Your task to perform on an android device: change text size in settings app Image 0: 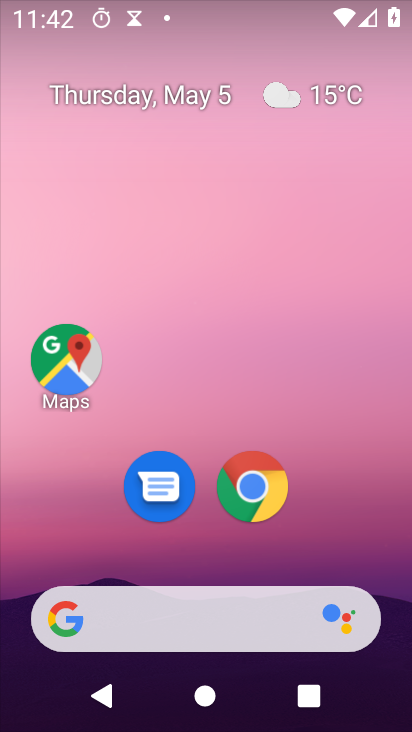
Step 0: drag from (389, 617) to (263, 221)
Your task to perform on an android device: change text size in settings app Image 1: 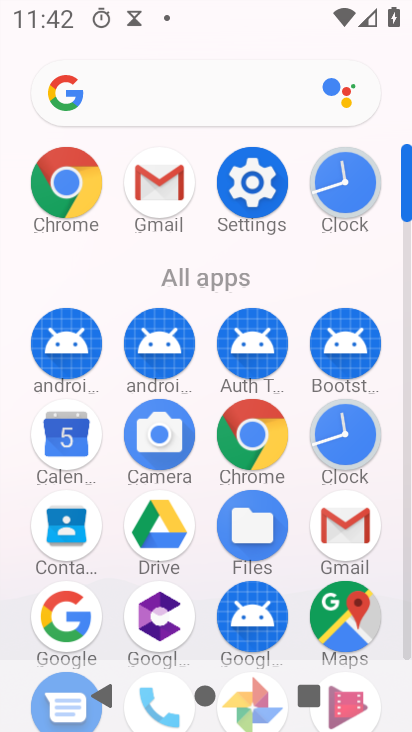
Step 1: click (257, 183)
Your task to perform on an android device: change text size in settings app Image 2: 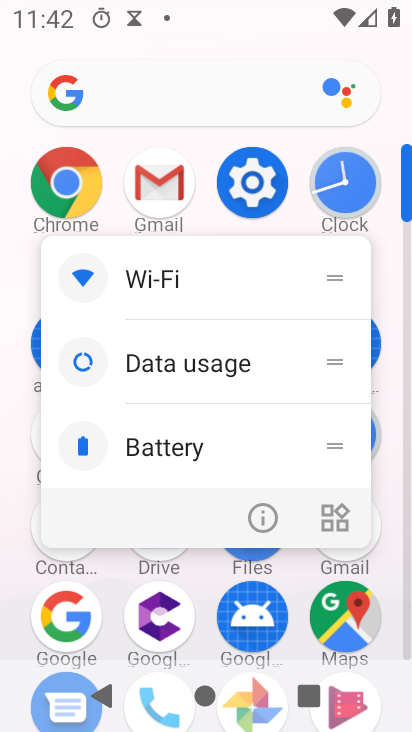
Step 2: click (210, 203)
Your task to perform on an android device: change text size in settings app Image 3: 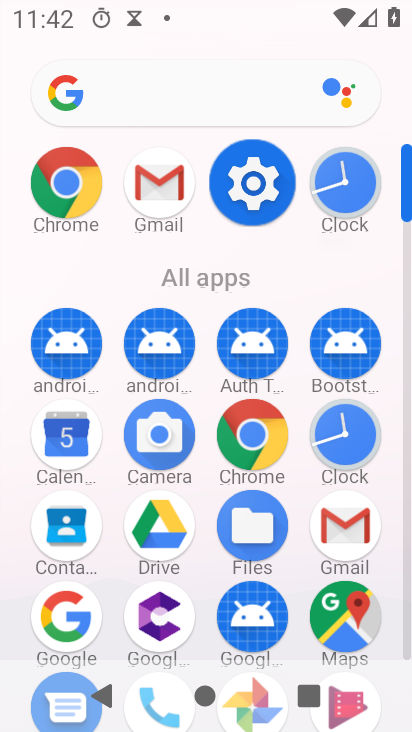
Step 3: click (230, 215)
Your task to perform on an android device: change text size in settings app Image 4: 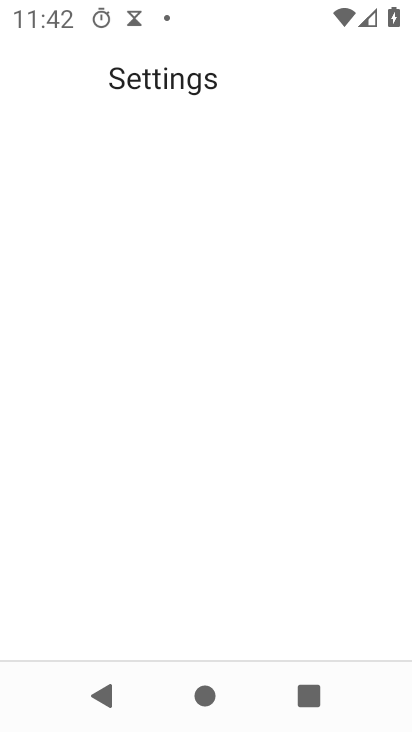
Step 4: click (253, 172)
Your task to perform on an android device: change text size in settings app Image 5: 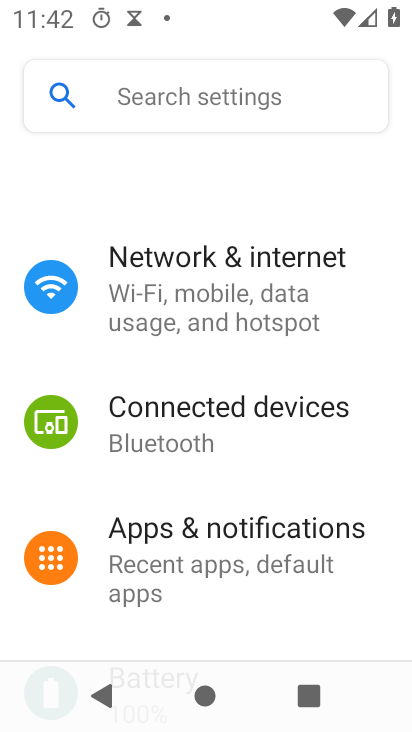
Step 5: click (254, 173)
Your task to perform on an android device: change text size in settings app Image 6: 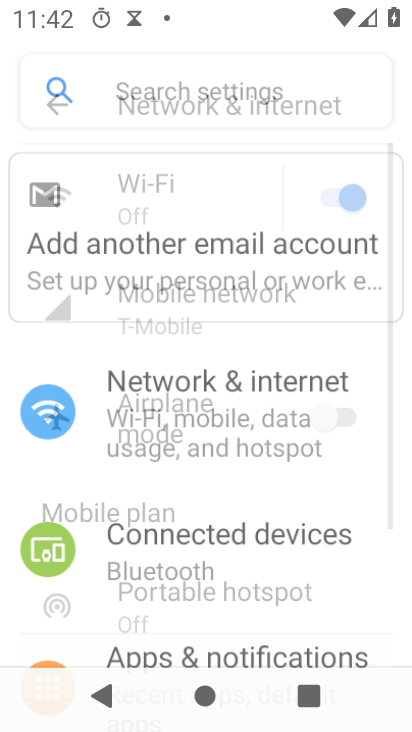
Step 6: drag from (226, 329) to (207, 195)
Your task to perform on an android device: change text size in settings app Image 7: 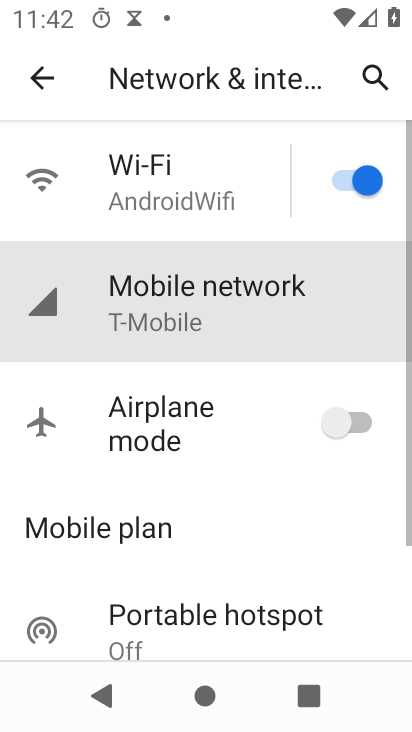
Step 7: drag from (280, 509) to (257, 205)
Your task to perform on an android device: change text size in settings app Image 8: 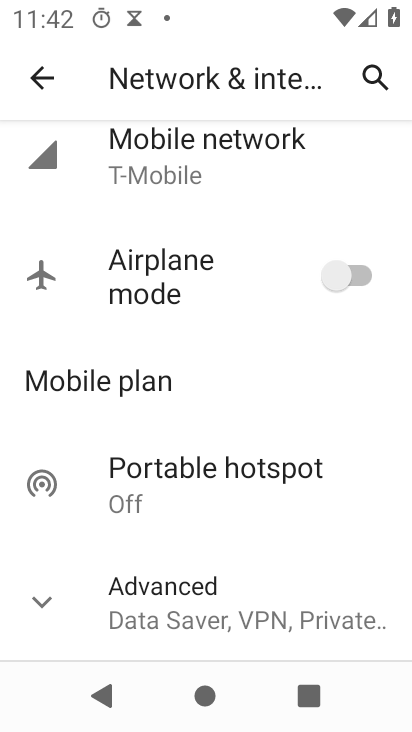
Step 8: click (41, 76)
Your task to perform on an android device: change text size in settings app Image 9: 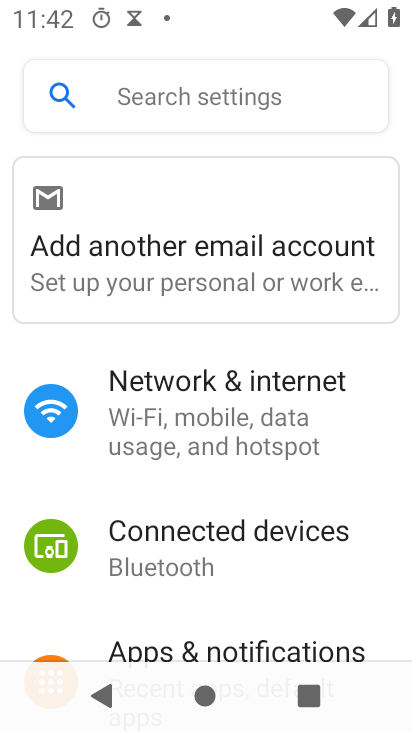
Step 9: drag from (229, 556) to (221, 317)
Your task to perform on an android device: change text size in settings app Image 10: 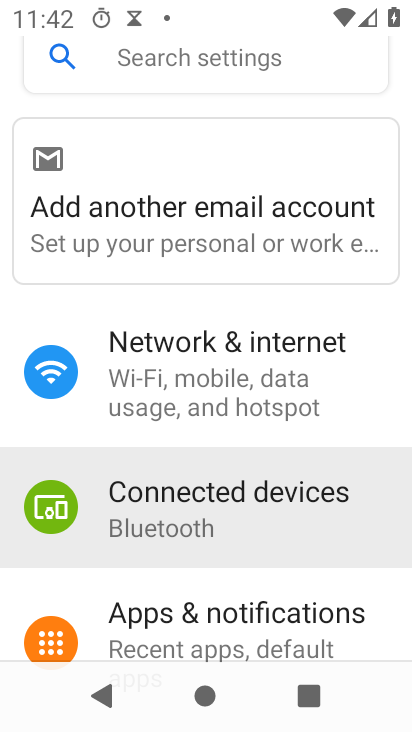
Step 10: drag from (222, 565) to (240, 202)
Your task to perform on an android device: change text size in settings app Image 11: 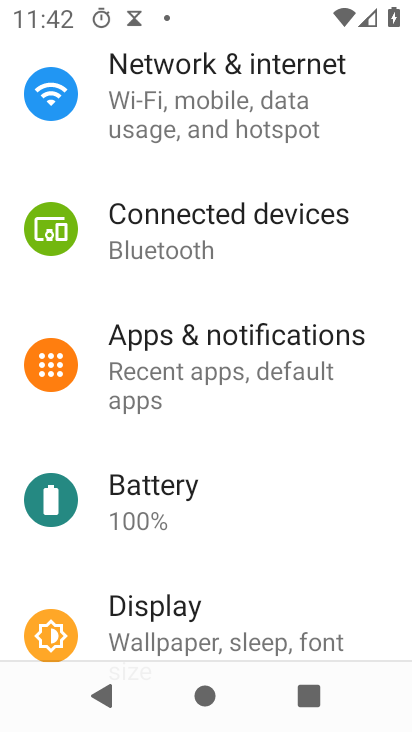
Step 11: drag from (245, 470) to (214, 144)
Your task to perform on an android device: change text size in settings app Image 12: 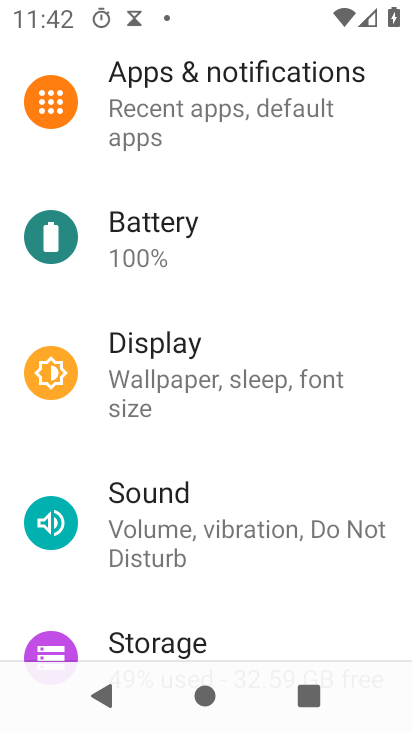
Step 12: click (176, 379)
Your task to perform on an android device: change text size in settings app Image 13: 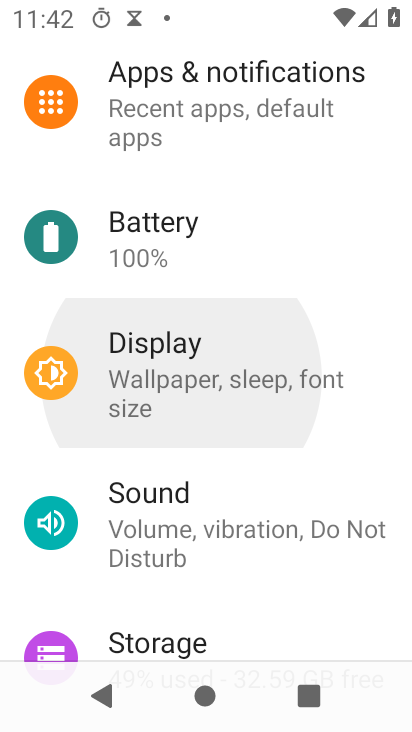
Step 13: click (176, 379)
Your task to perform on an android device: change text size in settings app Image 14: 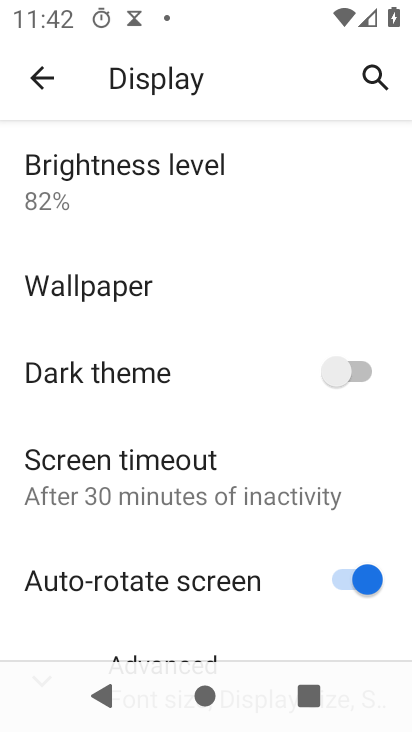
Step 14: drag from (188, 543) to (112, 56)
Your task to perform on an android device: change text size in settings app Image 15: 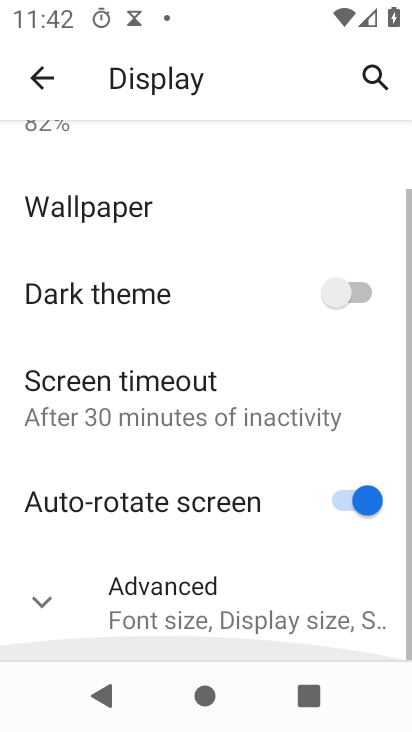
Step 15: drag from (195, 439) to (96, 139)
Your task to perform on an android device: change text size in settings app Image 16: 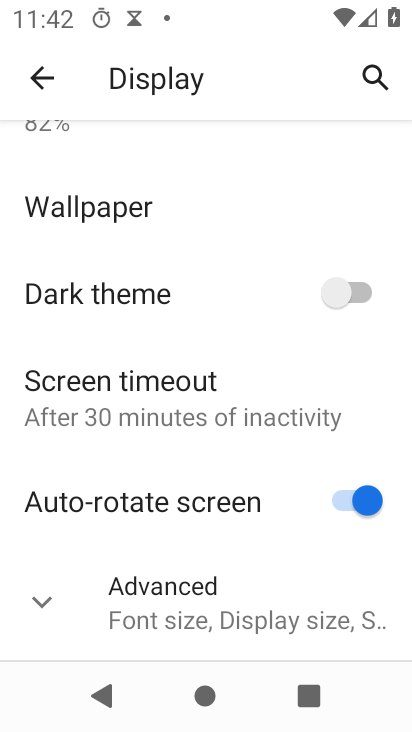
Step 16: drag from (218, 565) to (171, 190)
Your task to perform on an android device: change text size in settings app Image 17: 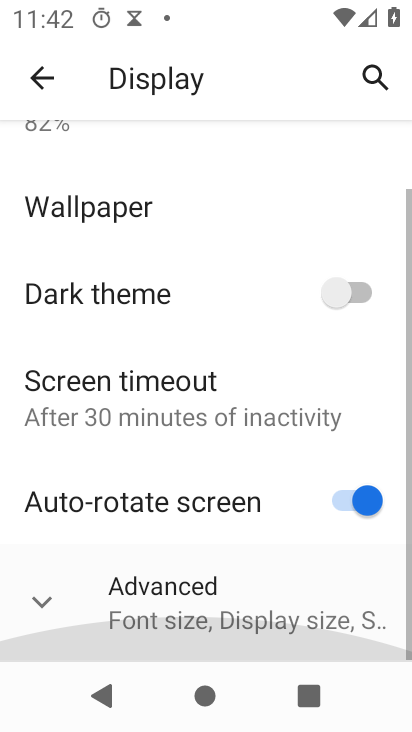
Step 17: drag from (215, 523) to (228, 173)
Your task to perform on an android device: change text size in settings app Image 18: 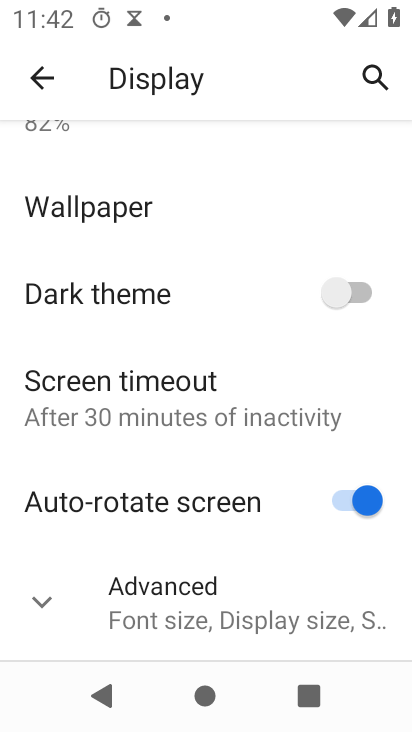
Step 18: click (213, 598)
Your task to perform on an android device: change text size in settings app Image 19: 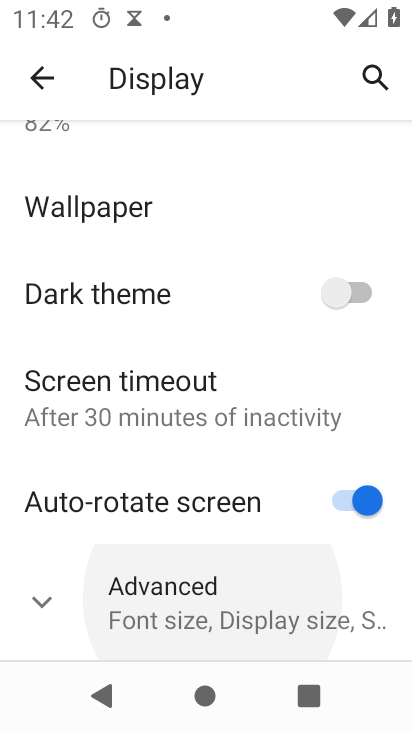
Step 19: click (215, 613)
Your task to perform on an android device: change text size in settings app Image 20: 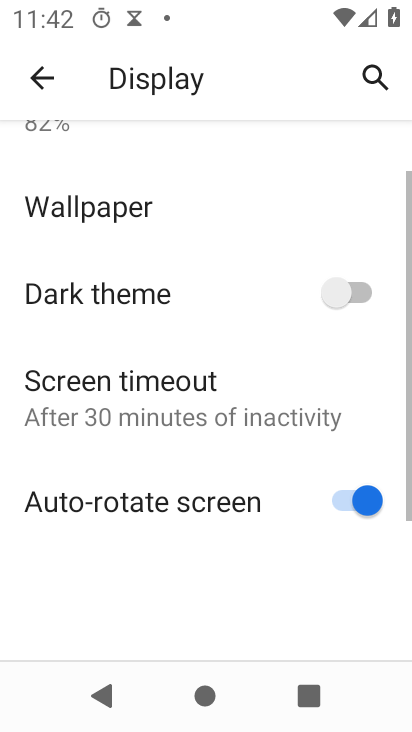
Step 20: click (217, 615)
Your task to perform on an android device: change text size in settings app Image 21: 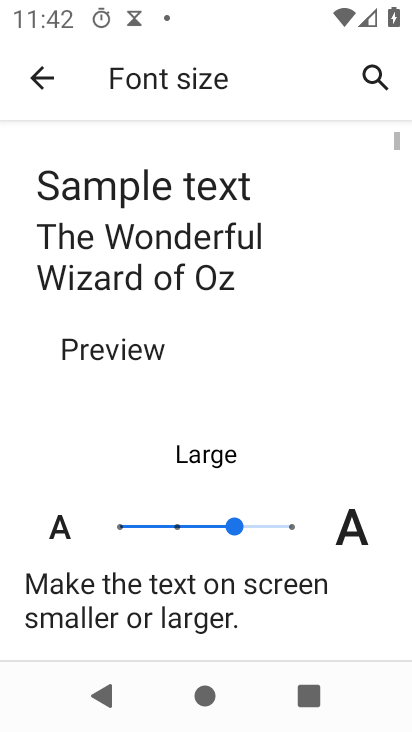
Step 21: click (282, 589)
Your task to perform on an android device: change text size in settings app Image 22: 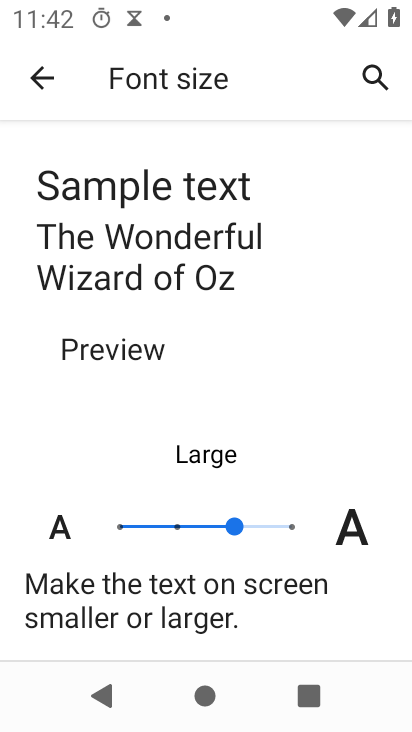
Step 22: click (166, 519)
Your task to perform on an android device: change text size in settings app Image 23: 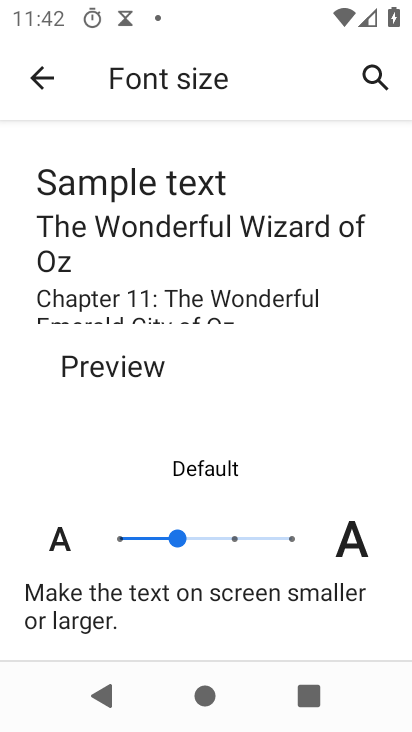
Step 23: task complete